Your task to perform on an android device: Show me the alarms in the clock app Image 0: 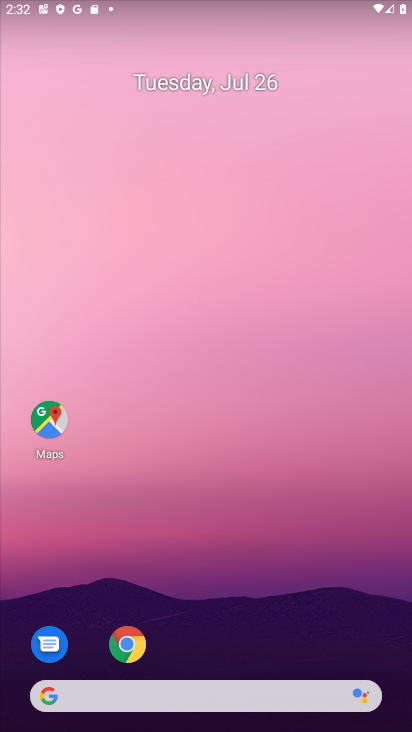
Step 0: drag from (217, 666) to (114, 170)
Your task to perform on an android device: Show me the alarms in the clock app Image 1: 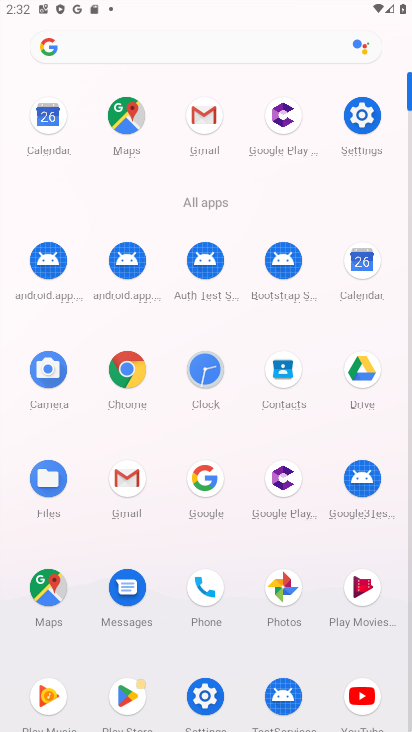
Step 1: click (201, 386)
Your task to perform on an android device: Show me the alarms in the clock app Image 2: 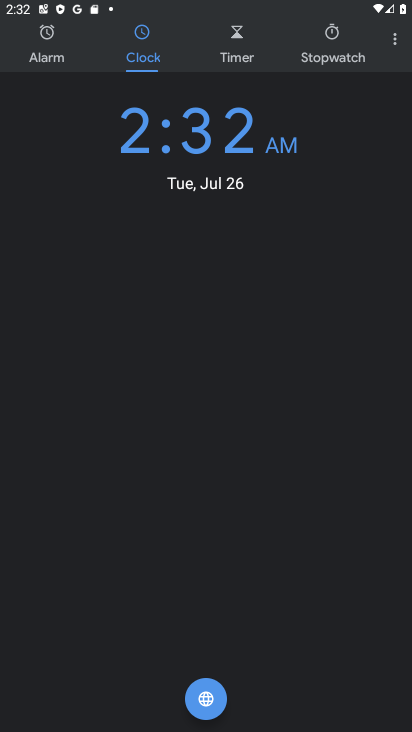
Step 2: click (26, 62)
Your task to perform on an android device: Show me the alarms in the clock app Image 3: 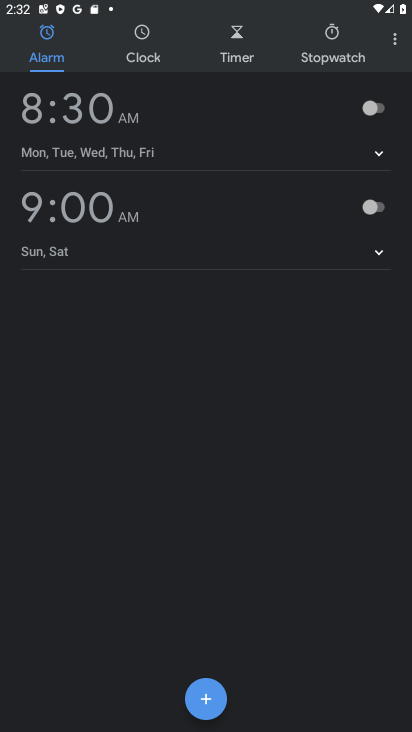
Step 3: click (235, 697)
Your task to perform on an android device: Show me the alarms in the clock app Image 4: 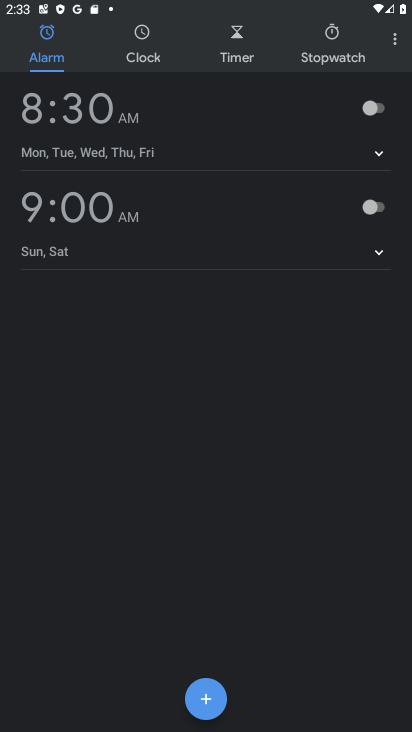
Step 4: task complete